Your task to perform on an android device: Search for pizza restaurants on Maps Image 0: 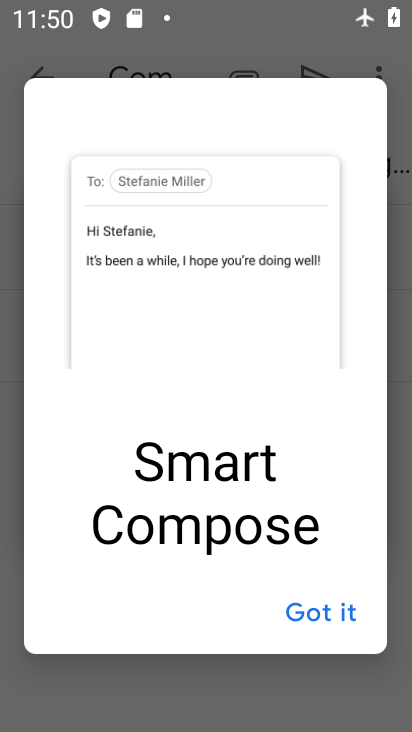
Step 0: press home button
Your task to perform on an android device: Search for pizza restaurants on Maps Image 1: 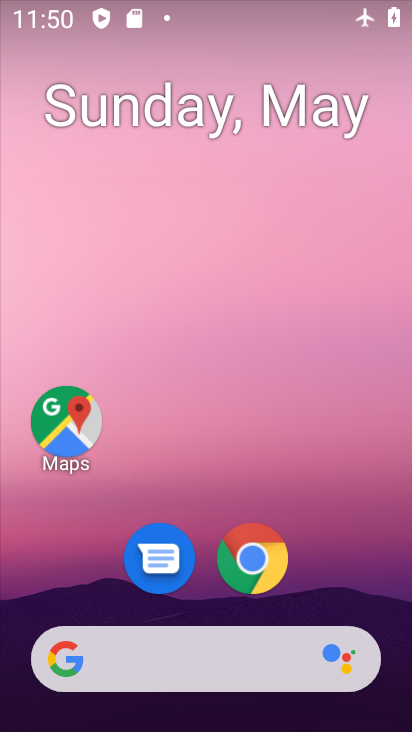
Step 1: drag from (363, 576) to (367, 191)
Your task to perform on an android device: Search for pizza restaurants on Maps Image 2: 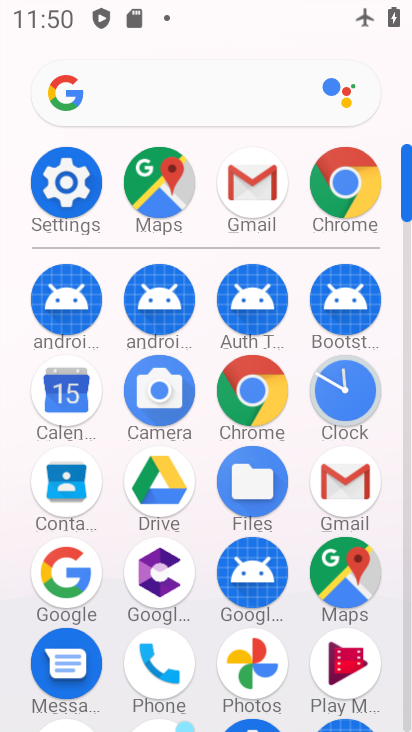
Step 2: click (341, 596)
Your task to perform on an android device: Search for pizza restaurants on Maps Image 3: 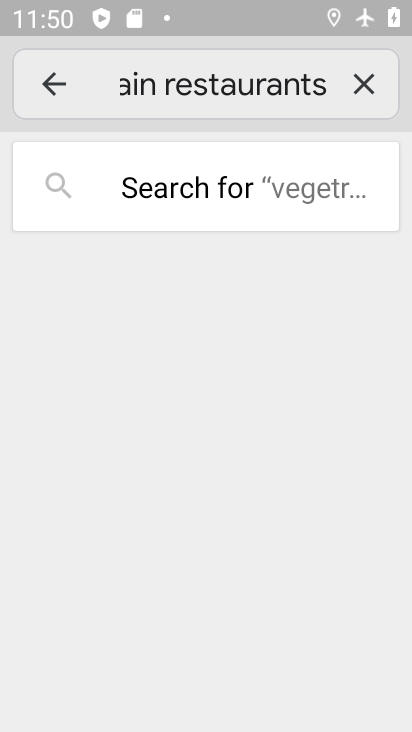
Step 3: click (369, 80)
Your task to perform on an android device: Search for pizza restaurants on Maps Image 4: 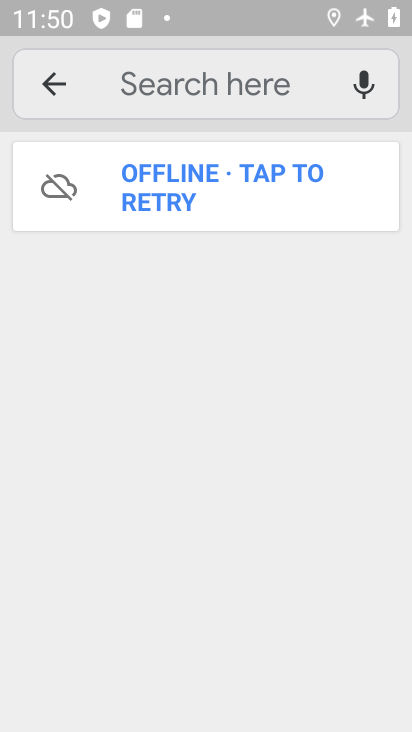
Step 4: click (247, 110)
Your task to perform on an android device: Search for pizza restaurants on Maps Image 5: 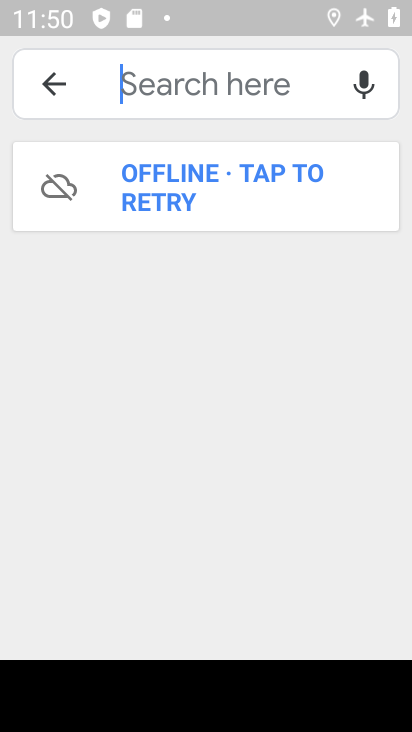
Step 5: type "pizzaa  restaurants"
Your task to perform on an android device: Search for pizza restaurants on Maps Image 6: 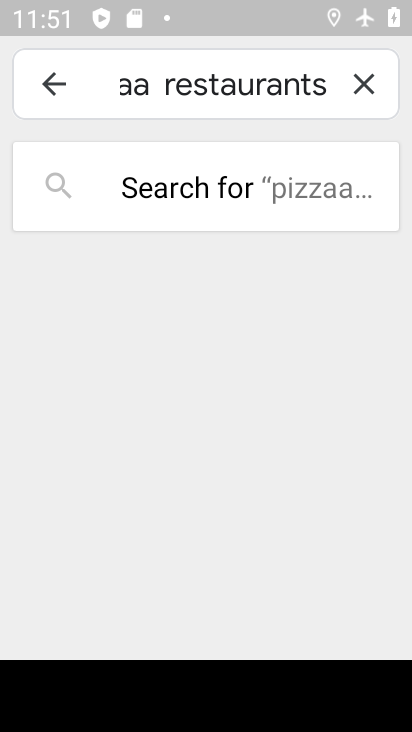
Step 6: task complete